Your task to perform on an android device: toggle location history Image 0: 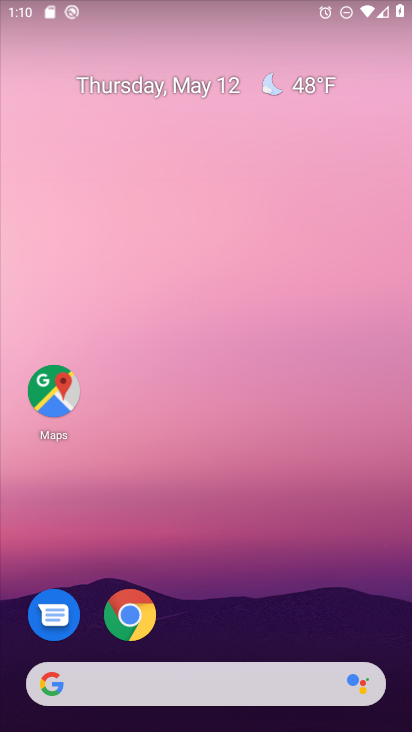
Step 0: drag from (311, 627) to (315, 150)
Your task to perform on an android device: toggle location history Image 1: 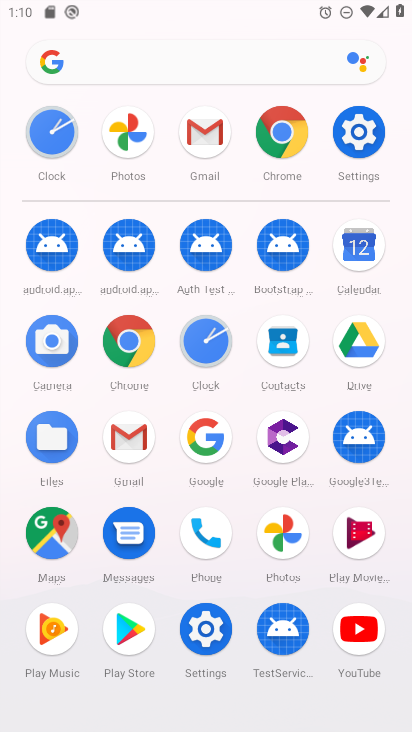
Step 1: click (366, 135)
Your task to perform on an android device: toggle location history Image 2: 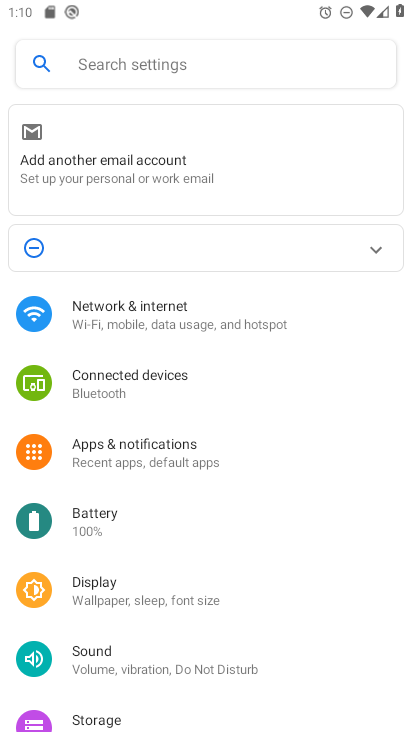
Step 2: drag from (228, 667) to (294, 151)
Your task to perform on an android device: toggle location history Image 3: 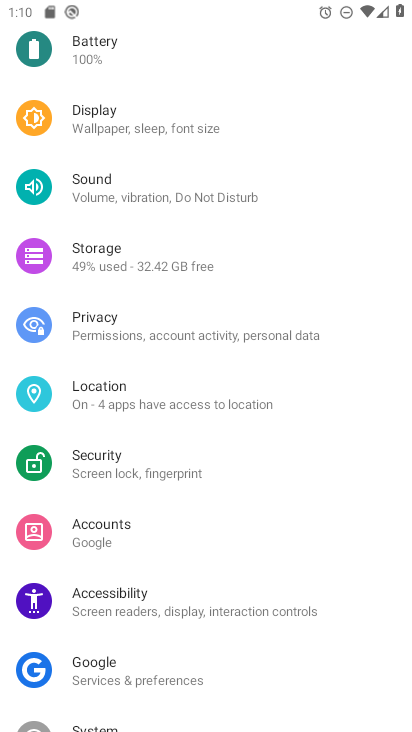
Step 3: click (173, 401)
Your task to perform on an android device: toggle location history Image 4: 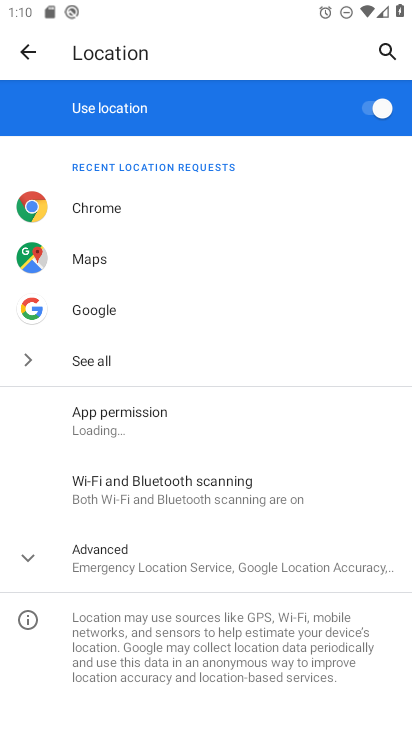
Step 4: click (161, 553)
Your task to perform on an android device: toggle location history Image 5: 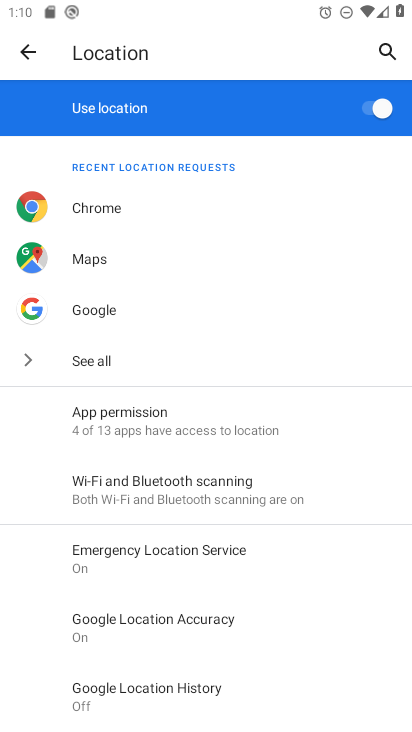
Step 5: click (155, 684)
Your task to perform on an android device: toggle location history Image 6: 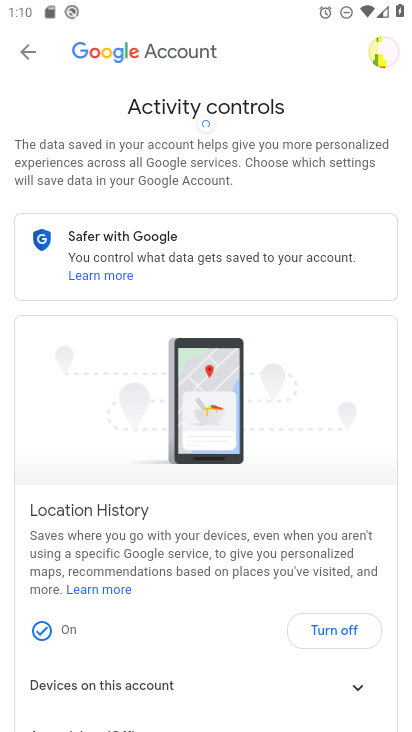
Step 6: click (341, 626)
Your task to perform on an android device: toggle location history Image 7: 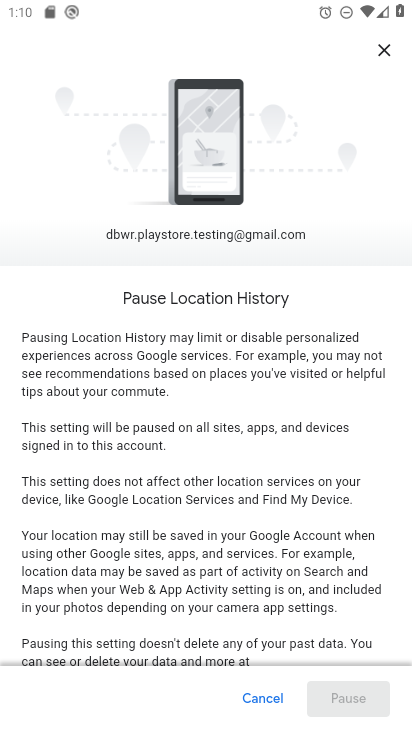
Step 7: drag from (285, 630) to (354, 175)
Your task to perform on an android device: toggle location history Image 8: 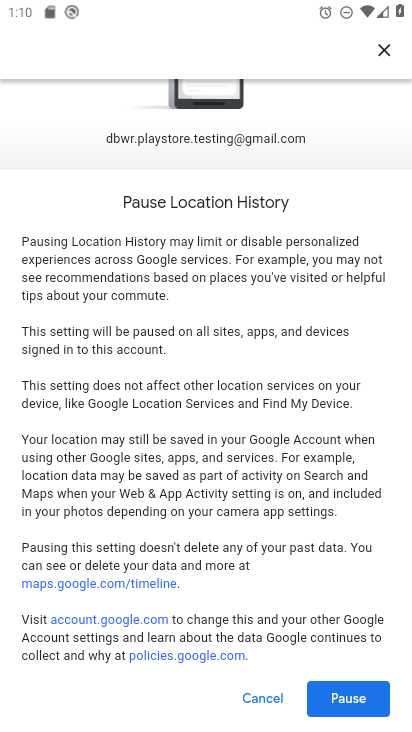
Step 8: click (331, 688)
Your task to perform on an android device: toggle location history Image 9: 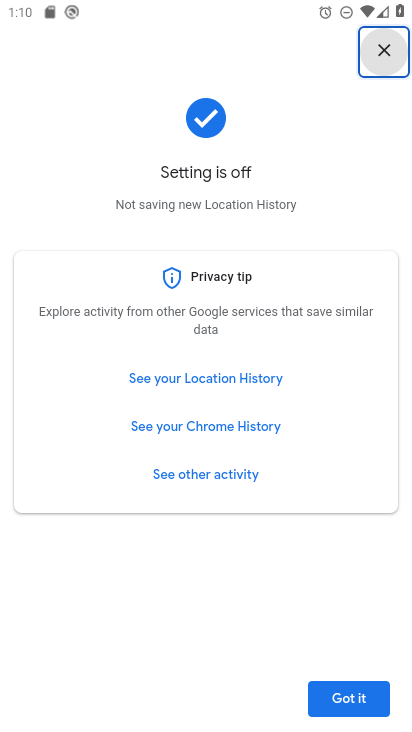
Step 9: click (347, 695)
Your task to perform on an android device: toggle location history Image 10: 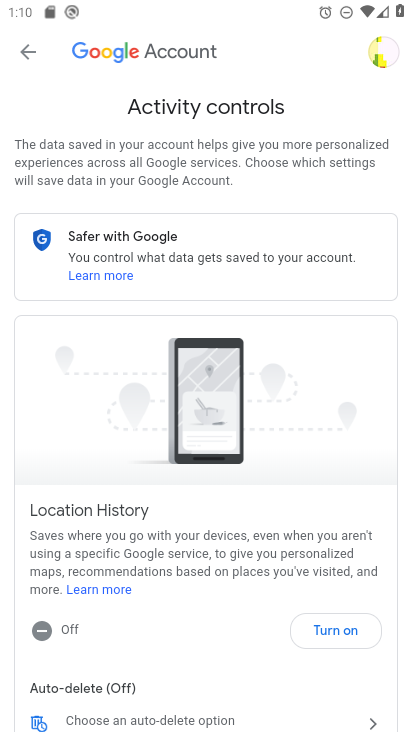
Step 10: task complete